Your task to perform on an android device: find which apps use the phone's location Image 0: 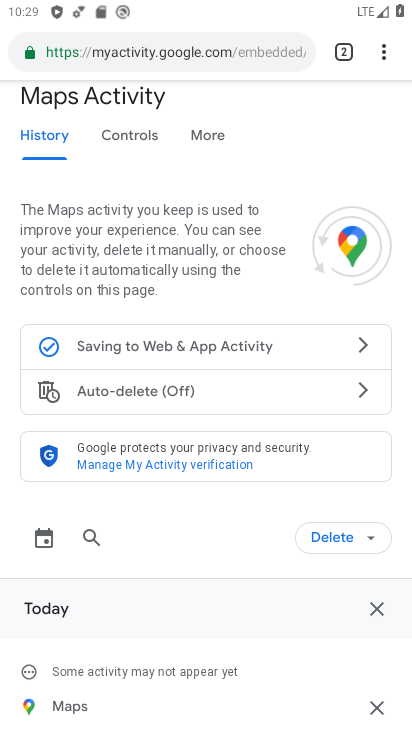
Step 0: press home button
Your task to perform on an android device: find which apps use the phone's location Image 1: 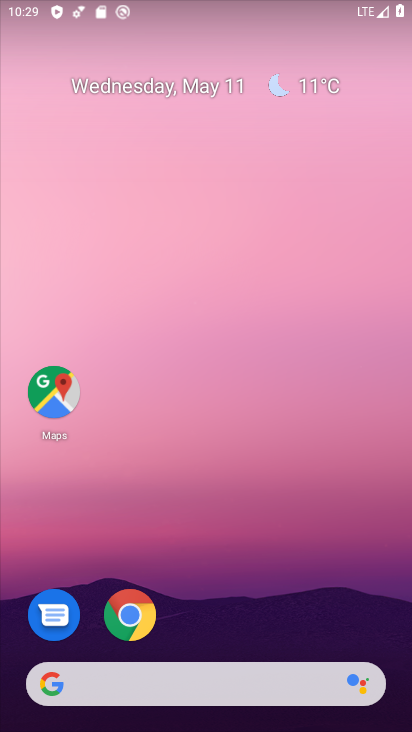
Step 1: drag from (254, 576) to (281, 69)
Your task to perform on an android device: find which apps use the phone's location Image 2: 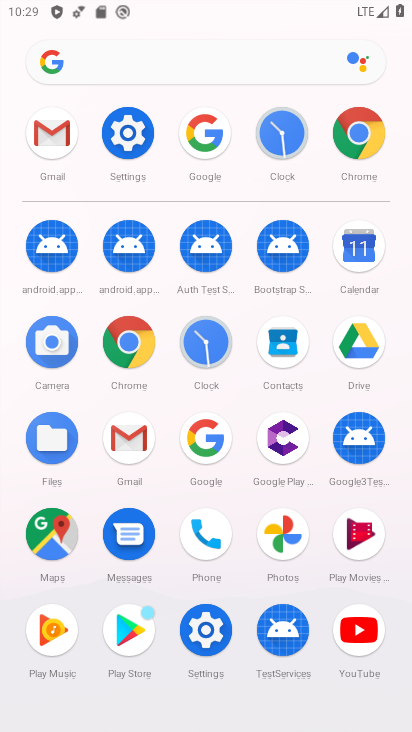
Step 2: click (138, 135)
Your task to perform on an android device: find which apps use the phone's location Image 3: 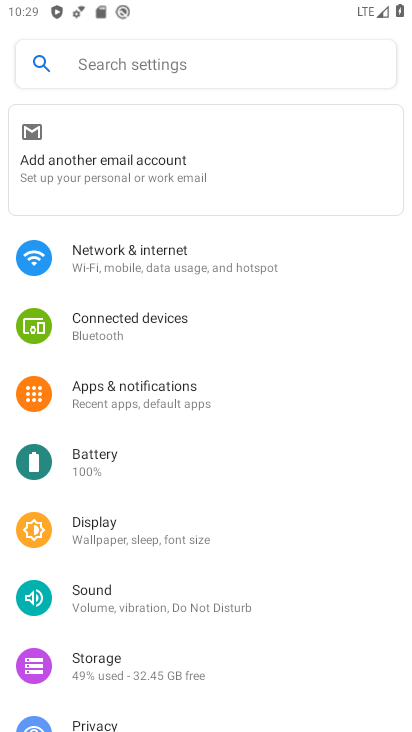
Step 3: drag from (175, 631) to (177, 186)
Your task to perform on an android device: find which apps use the phone's location Image 4: 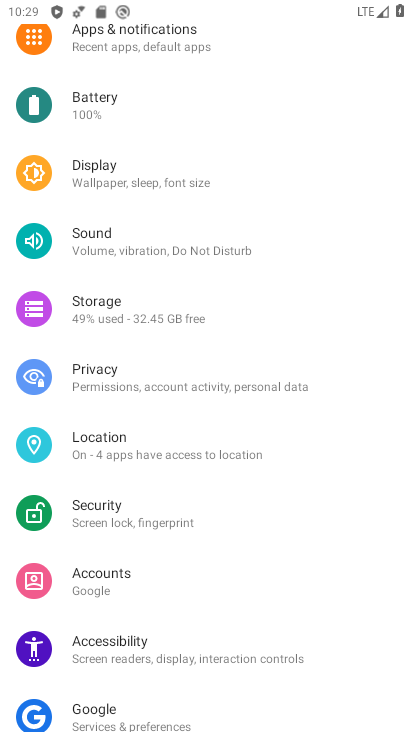
Step 4: click (93, 448)
Your task to perform on an android device: find which apps use the phone's location Image 5: 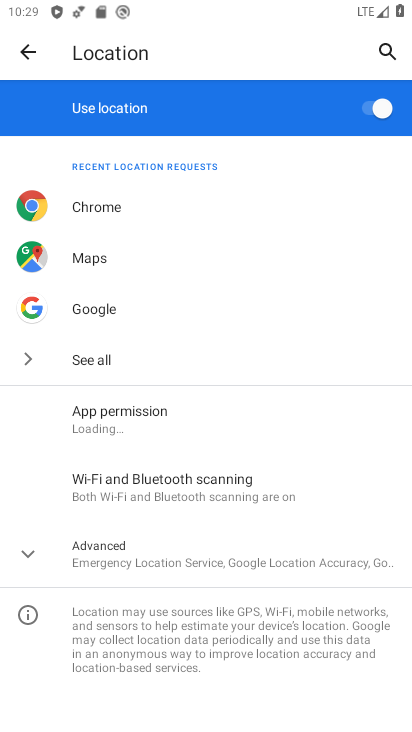
Step 5: click (102, 427)
Your task to perform on an android device: find which apps use the phone's location Image 6: 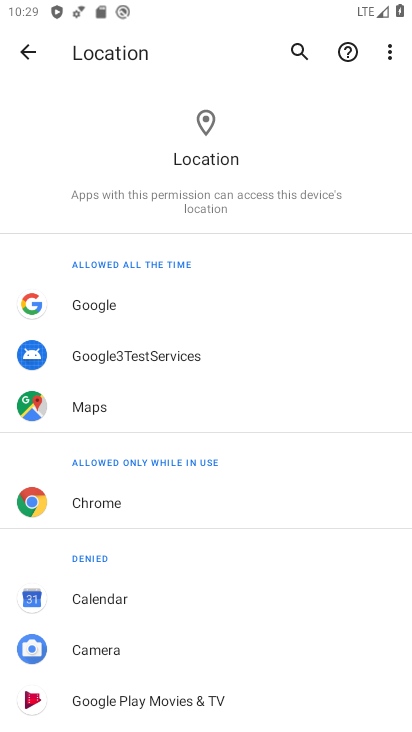
Step 6: task complete